Your task to perform on an android device: Open Google Chrome and click the shortcut for Amazon.com Image 0: 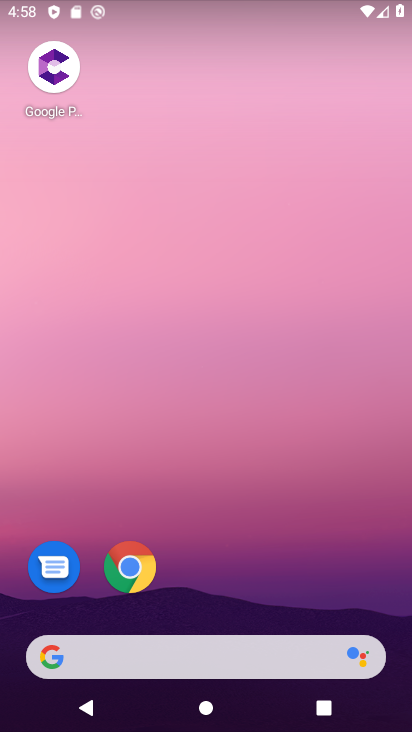
Step 0: click (130, 566)
Your task to perform on an android device: Open Google Chrome and click the shortcut for Amazon.com Image 1: 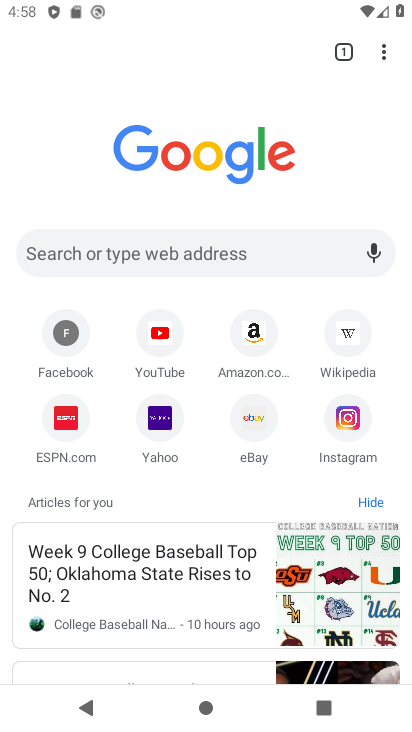
Step 1: click (239, 331)
Your task to perform on an android device: Open Google Chrome and click the shortcut for Amazon.com Image 2: 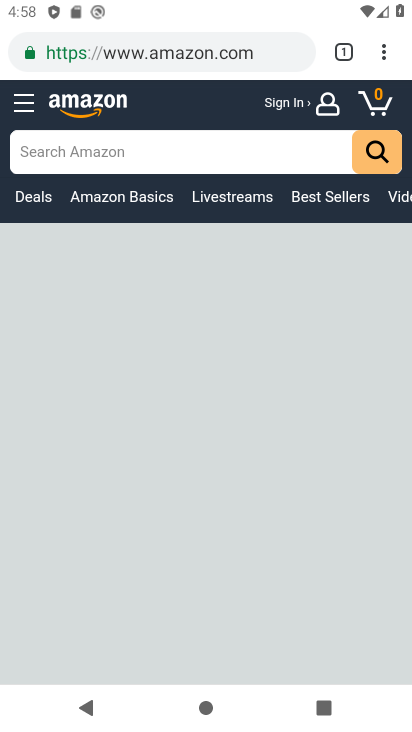
Step 2: drag from (386, 54) to (297, 524)
Your task to perform on an android device: Open Google Chrome and click the shortcut for Amazon.com Image 3: 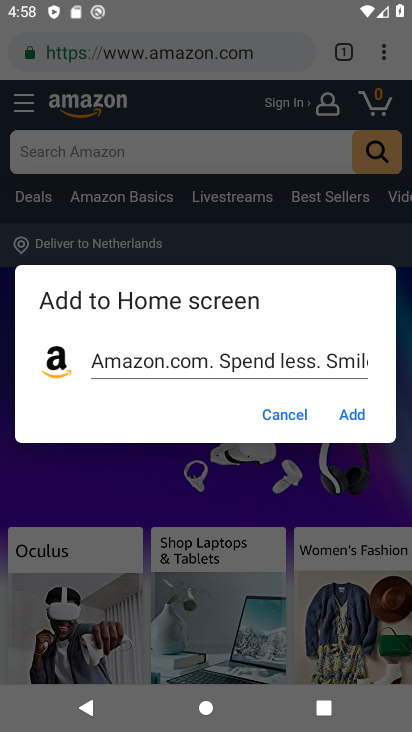
Step 3: click (358, 412)
Your task to perform on an android device: Open Google Chrome and click the shortcut for Amazon.com Image 4: 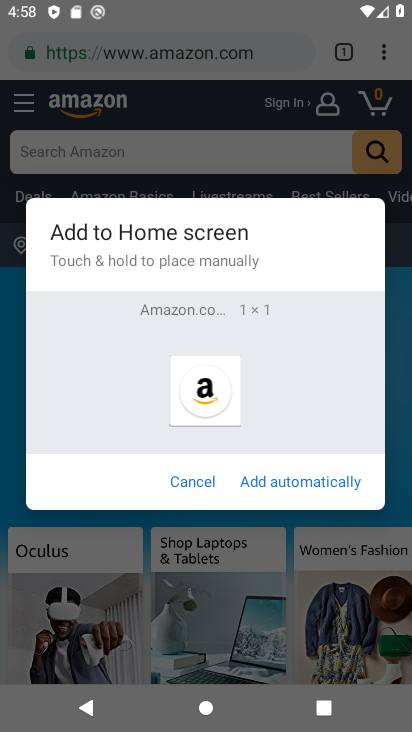
Step 4: click (298, 482)
Your task to perform on an android device: Open Google Chrome and click the shortcut for Amazon.com Image 5: 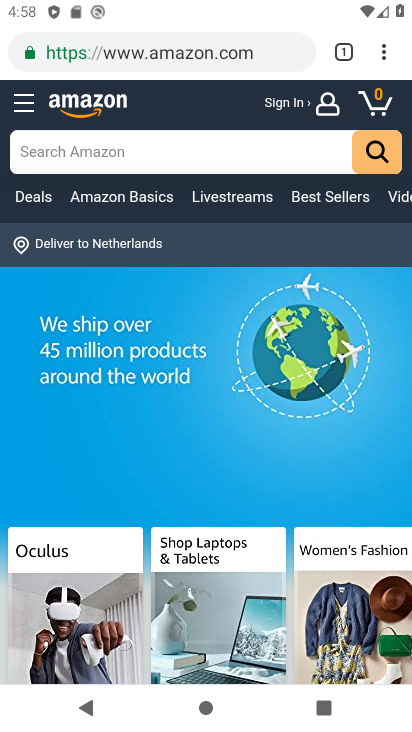
Step 5: task complete